Your task to perform on an android device: turn on bluetooth scan Image 0: 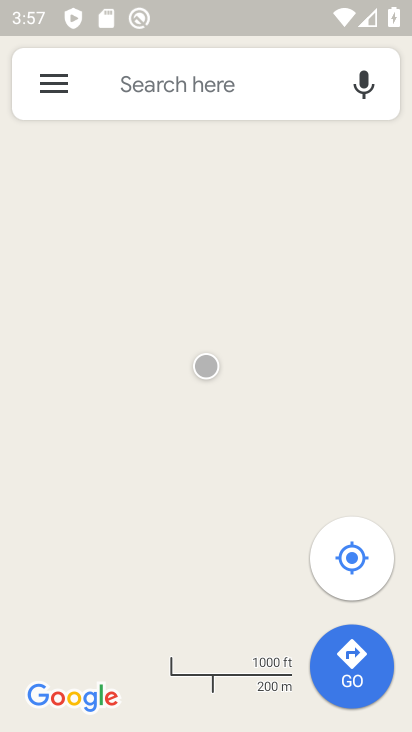
Step 0: press home button
Your task to perform on an android device: turn on bluetooth scan Image 1: 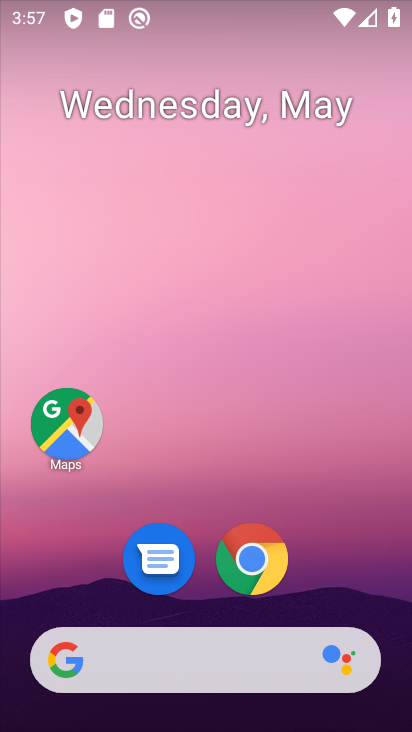
Step 1: drag from (297, 412) to (228, 74)
Your task to perform on an android device: turn on bluetooth scan Image 2: 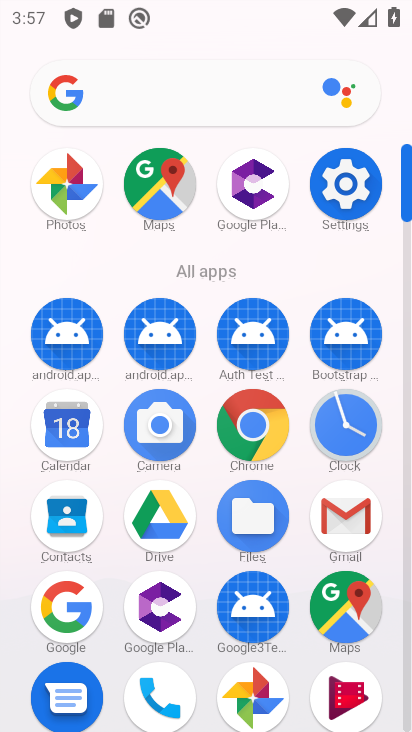
Step 2: click (351, 193)
Your task to perform on an android device: turn on bluetooth scan Image 3: 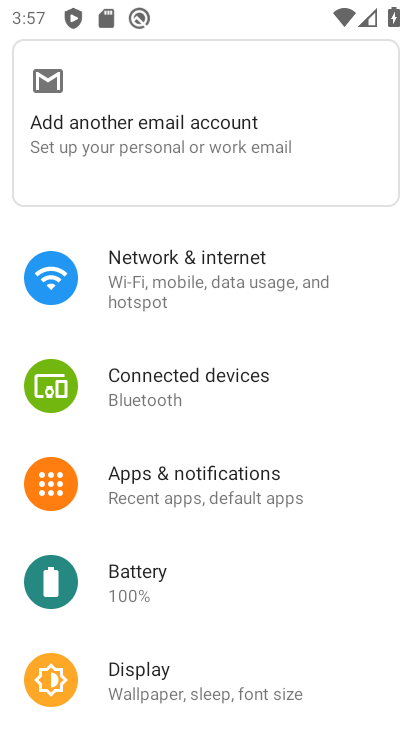
Step 3: drag from (260, 633) to (266, 170)
Your task to perform on an android device: turn on bluetooth scan Image 4: 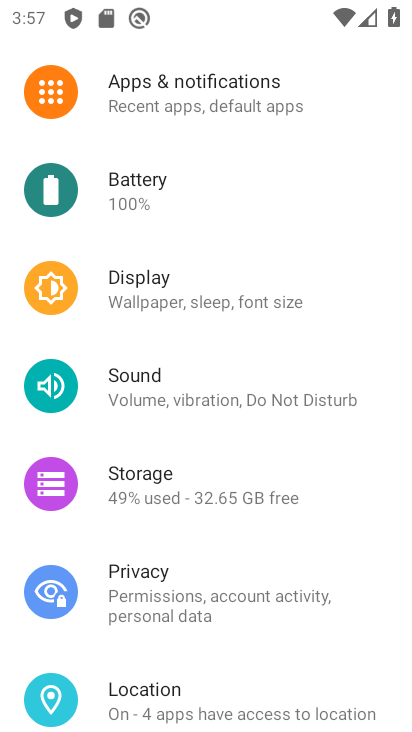
Step 4: click (226, 694)
Your task to perform on an android device: turn on bluetooth scan Image 5: 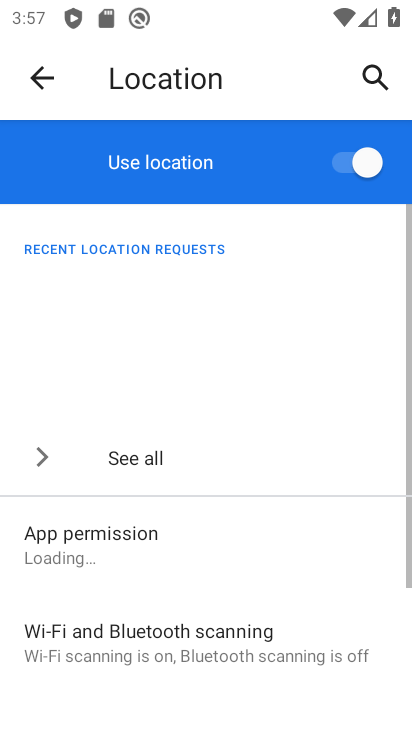
Step 5: click (254, 687)
Your task to perform on an android device: turn on bluetooth scan Image 6: 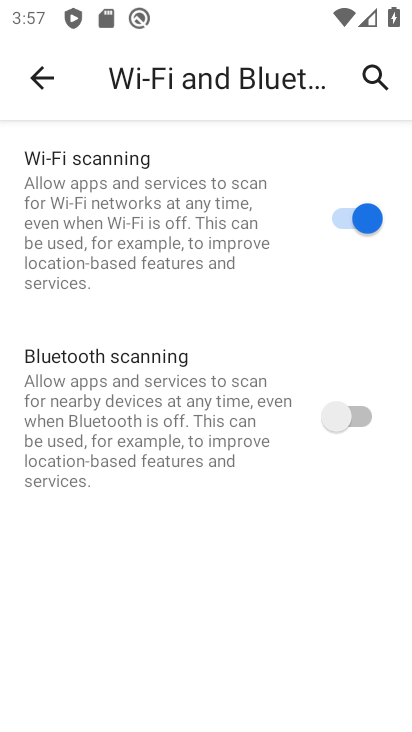
Step 6: click (329, 426)
Your task to perform on an android device: turn on bluetooth scan Image 7: 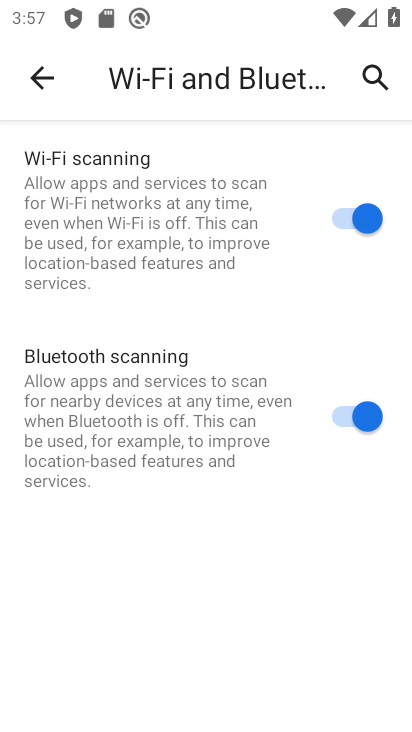
Step 7: task complete